Your task to perform on an android device: refresh tabs in the chrome app Image 0: 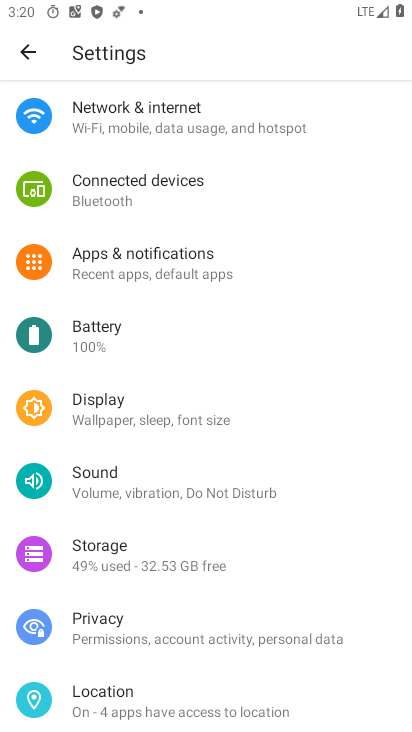
Step 0: click (379, 507)
Your task to perform on an android device: refresh tabs in the chrome app Image 1: 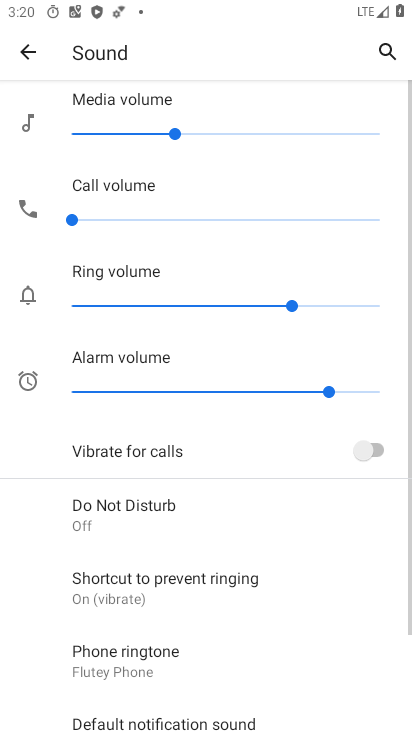
Step 1: press home button
Your task to perform on an android device: refresh tabs in the chrome app Image 2: 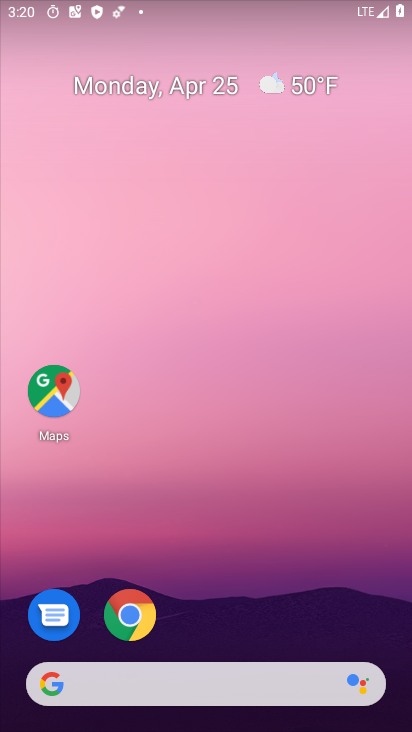
Step 2: click (130, 619)
Your task to perform on an android device: refresh tabs in the chrome app Image 3: 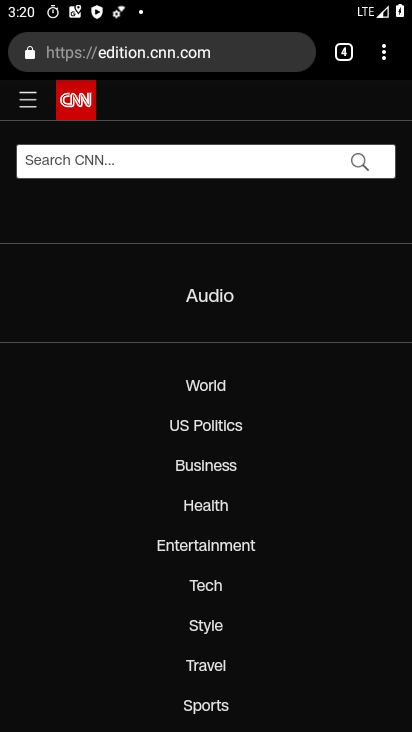
Step 3: click (383, 62)
Your task to perform on an android device: refresh tabs in the chrome app Image 4: 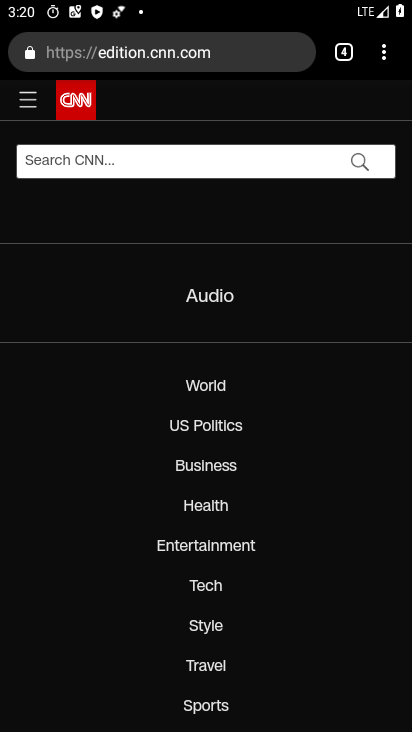
Step 4: task complete